Your task to perform on an android device: turn on data saver in the chrome app Image 0: 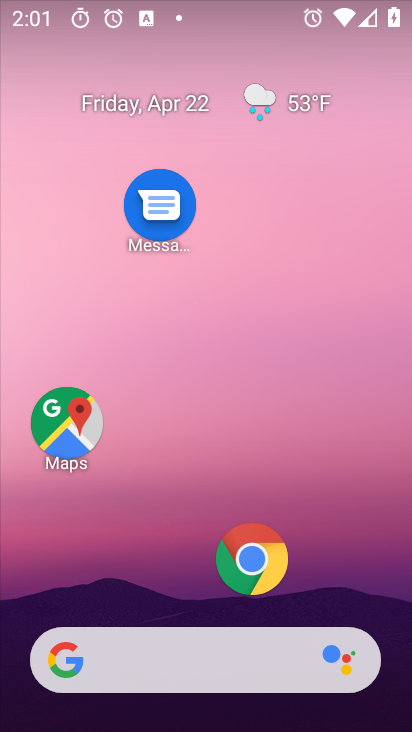
Step 0: click (300, 133)
Your task to perform on an android device: turn on data saver in the chrome app Image 1: 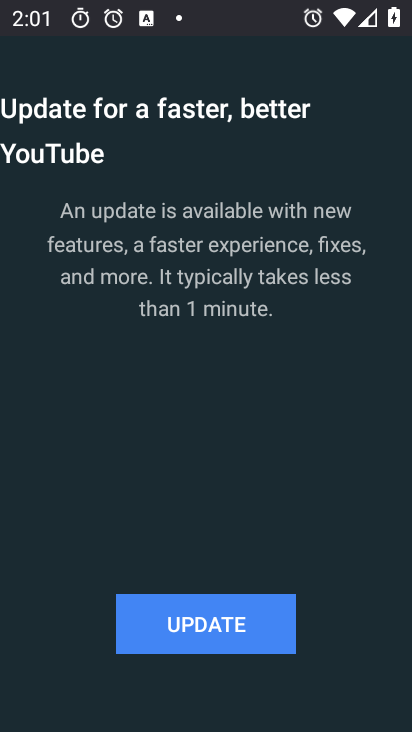
Step 1: press home button
Your task to perform on an android device: turn on data saver in the chrome app Image 2: 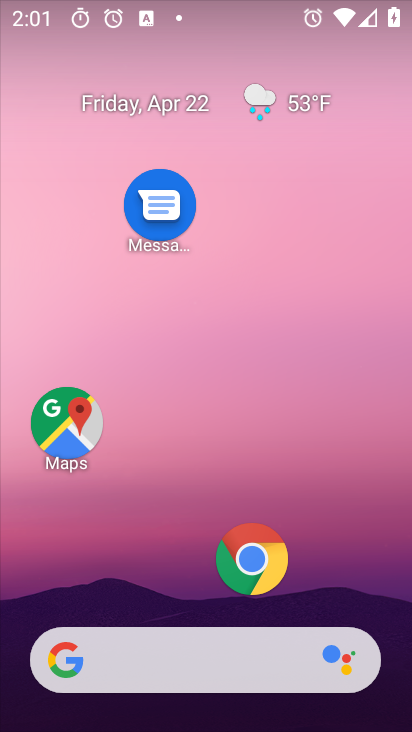
Step 2: click (254, 564)
Your task to perform on an android device: turn on data saver in the chrome app Image 3: 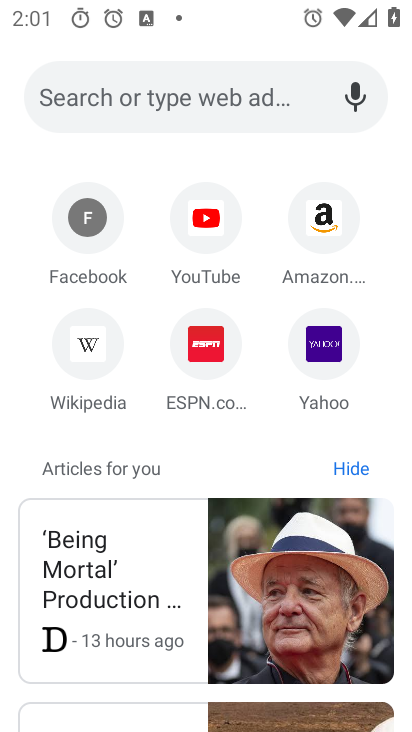
Step 3: drag from (162, 127) to (136, 346)
Your task to perform on an android device: turn on data saver in the chrome app Image 4: 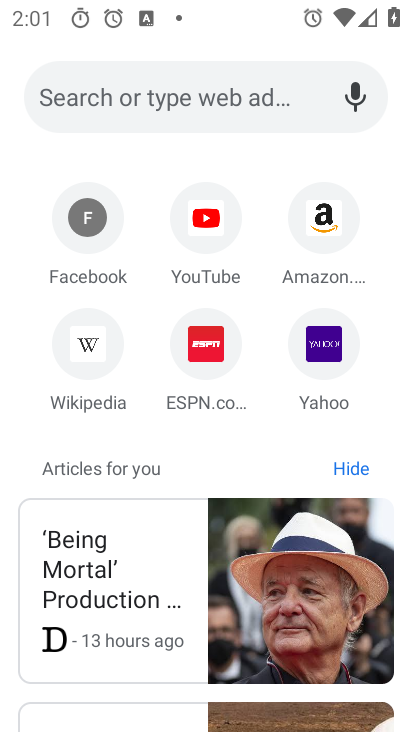
Step 4: drag from (208, 110) to (167, 437)
Your task to perform on an android device: turn on data saver in the chrome app Image 5: 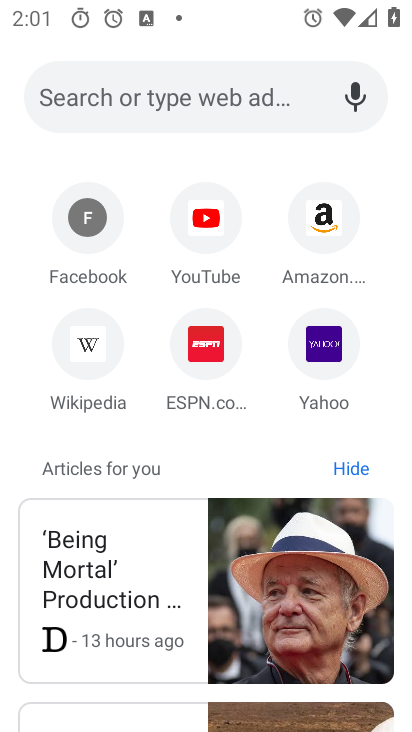
Step 5: drag from (306, 30) to (252, 501)
Your task to perform on an android device: turn on data saver in the chrome app Image 6: 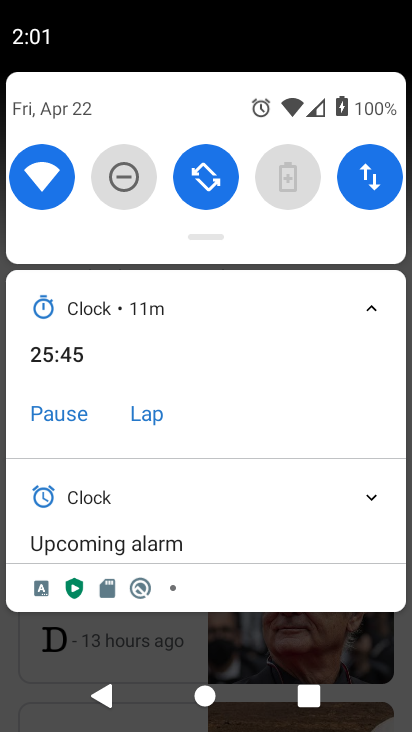
Step 6: click (66, 399)
Your task to perform on an android device: turn on data saver in the chrome app Image 7: 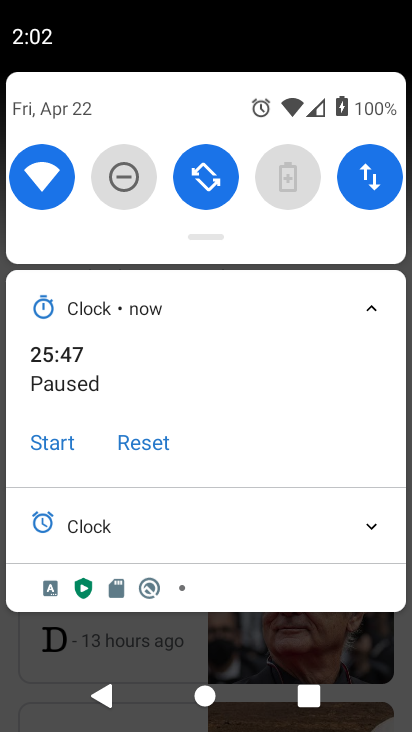
Step 7: click (174, 641)
Your task to perform on an android device: turn on data saver in the chrome app Image 8: 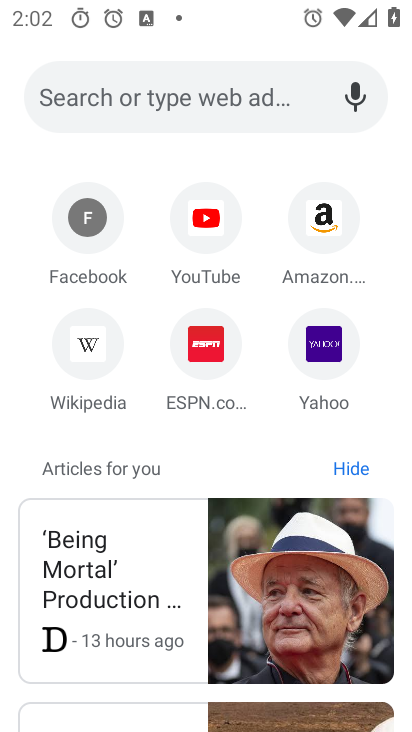
Step 8: drag from (251, 151) to (256, 514)
Your task to perform on an android device: turn on data saver in the chrome app Image 9: 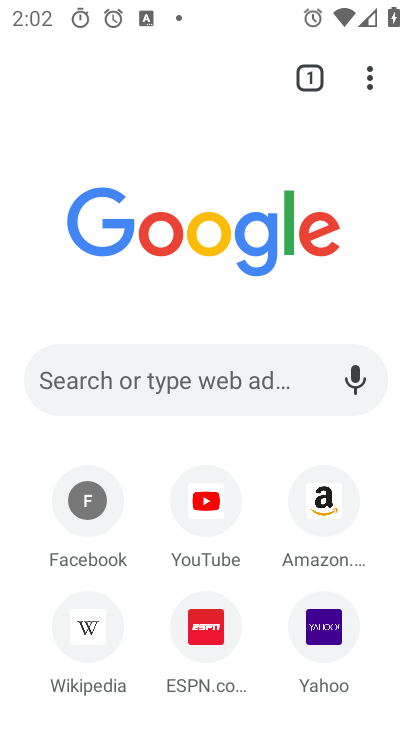
Step 9: click (368, 67)
Your task to perform on an android device: turn on data saver in the chrome app Image 10: 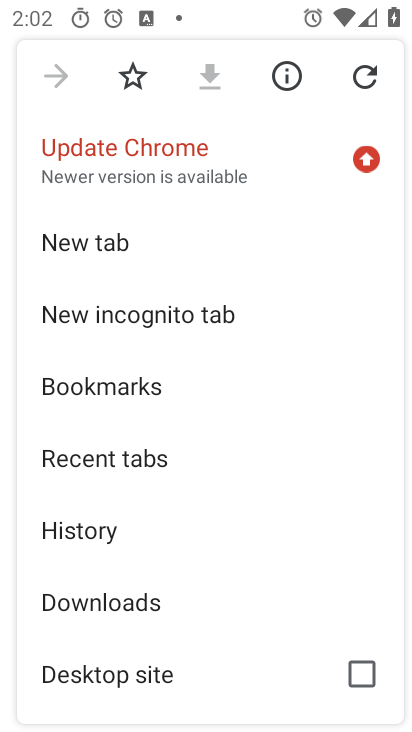
Step 10: drag from (91, 652) to (85, 218)
Your task to perform on an android device: turn on data saver in the chrome app Image 11: 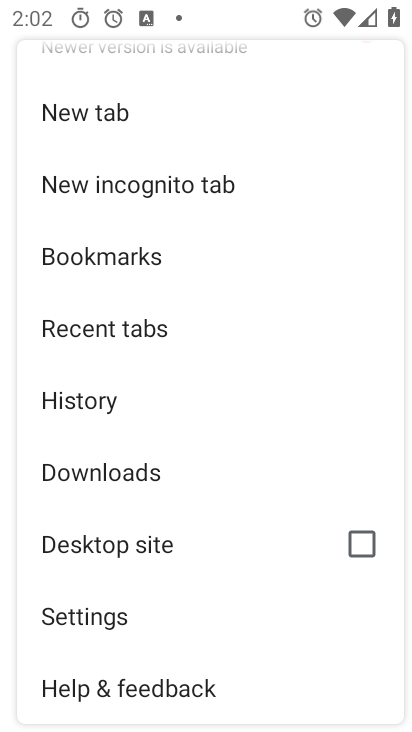
Step 11: click (71, 615)
Your task to perform on an android device: turn on data saver in the chrome app Image 12: 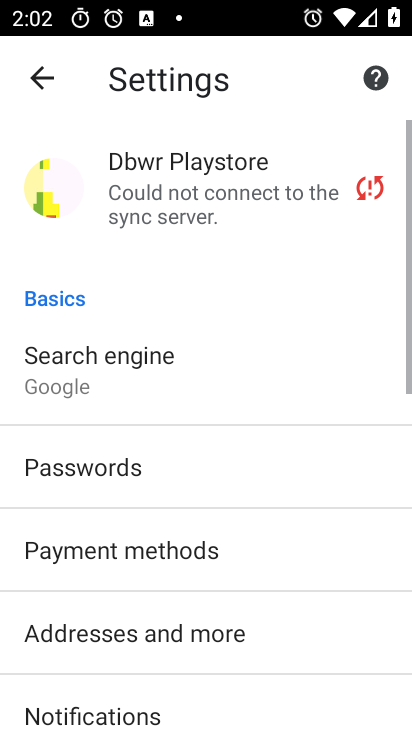
Step 12: drag from (81, 716) to (126, 273)
Your task to perform on an android device: turn on data saver in the chrome app Image 13: 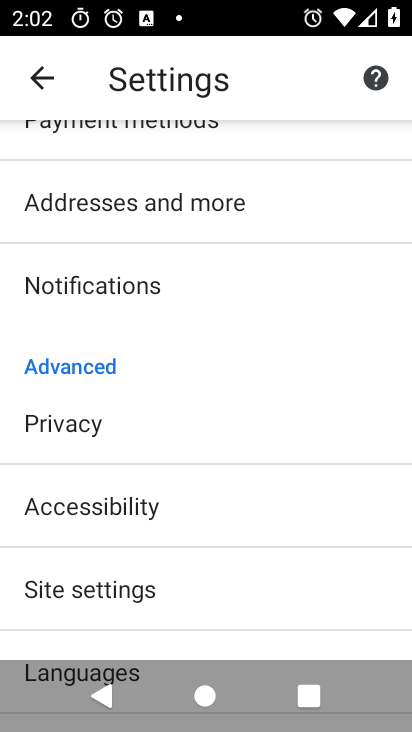
Step 13: click (80, 583)
Your task to perform on an android device: turn on data saver in the chrome app Image 14: 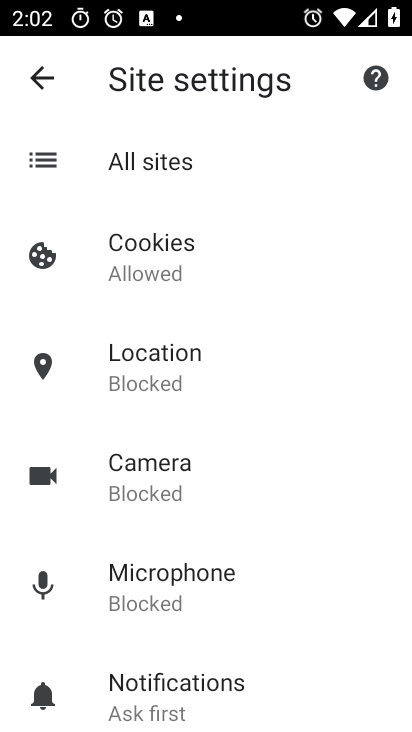
Step 14: drag from (79, 691) to (117, 294)
Your task to perform on an android device: turn on data saver in the chrome app Image 15: 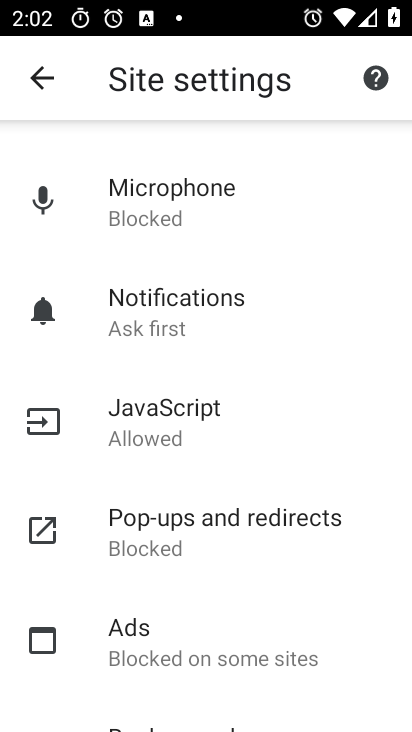
Step 15: click (44, 63)
Your task to perform on an android device: turn on data saver in the chrome app Image 16: 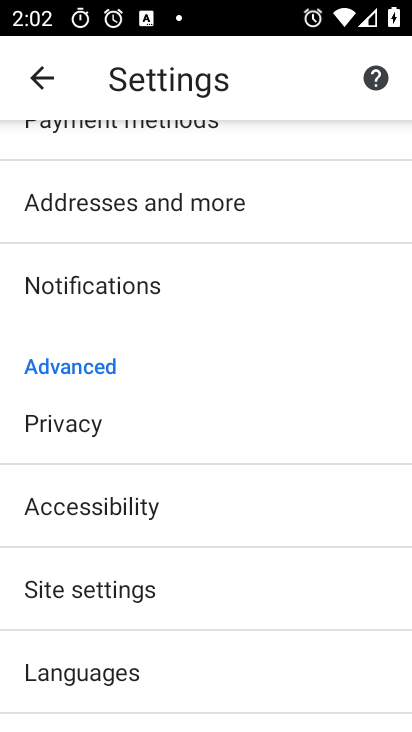
Step 16: drag from (95, 707) to (141, 333)
Your task to perform on an android device: turn on data saver in the chrome app Image 17: 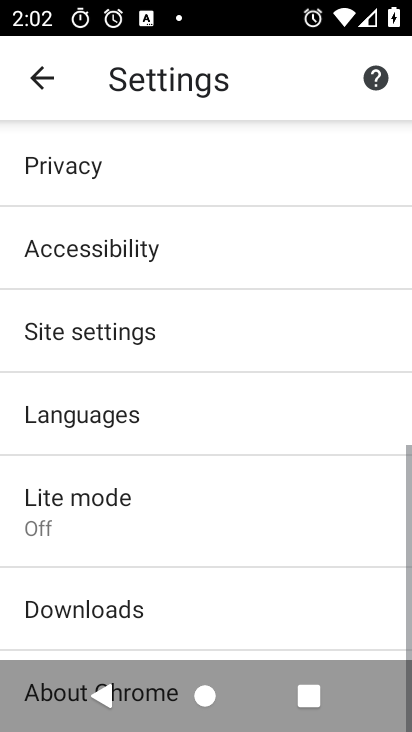
Step 17: click (67, 526)
Your task to perform on an android device: turn on data saver in the chrome app Image 18: 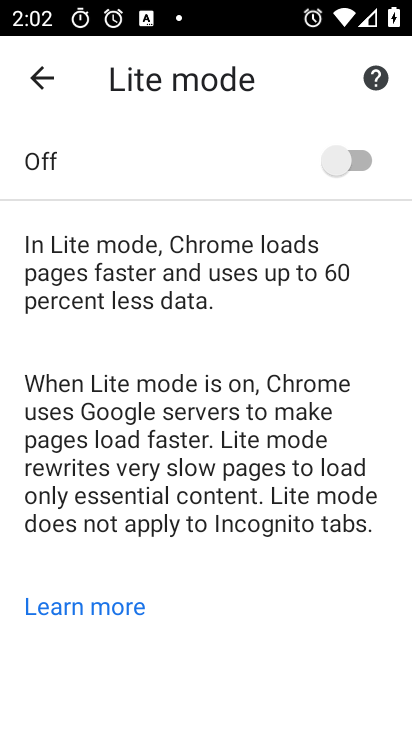
Step 18: click (362, 152)
Your task to perform on an android device: turn on data saver in the chrome app Image 19: 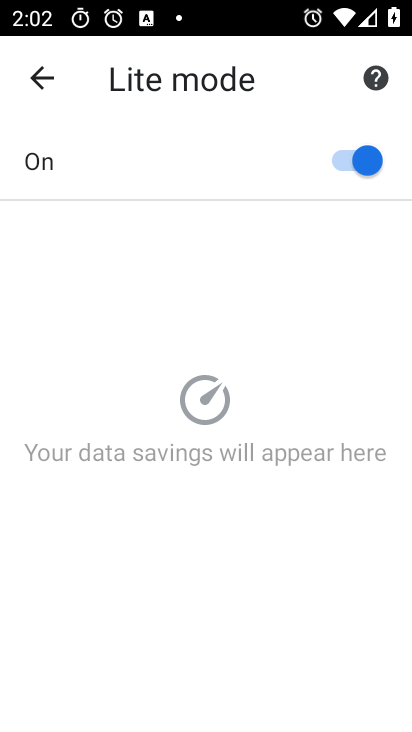
Step 19: task complete